Your task to perform on an android device: Open the Play Movies app and select the watchlist tab. Image 0: 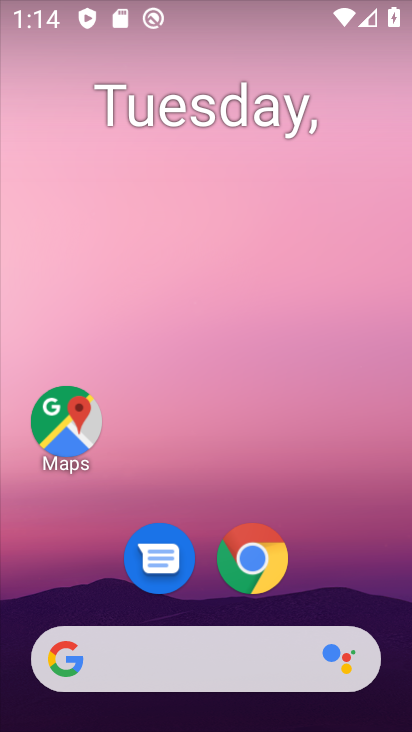
Step 0: drag from (212, 594) to (293, 36)
Your task to perform on an android device: Open the Play Movies app and select the watchlist tab. Image 1: 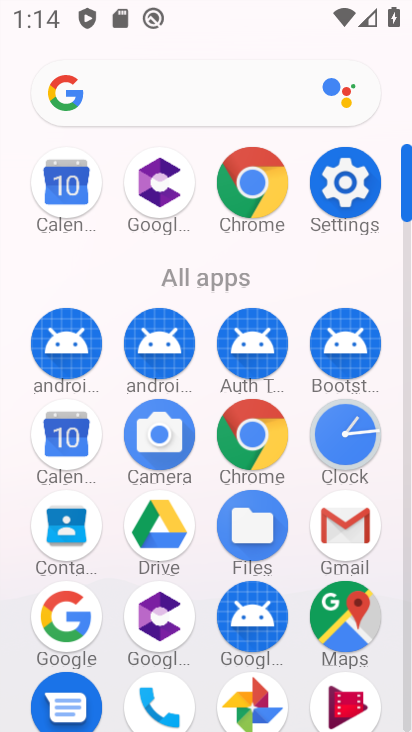
Step 1: click (348, 709)
Your task to perform on an android device: Open the Play Movies app and select the watchlist tab. Image 2: 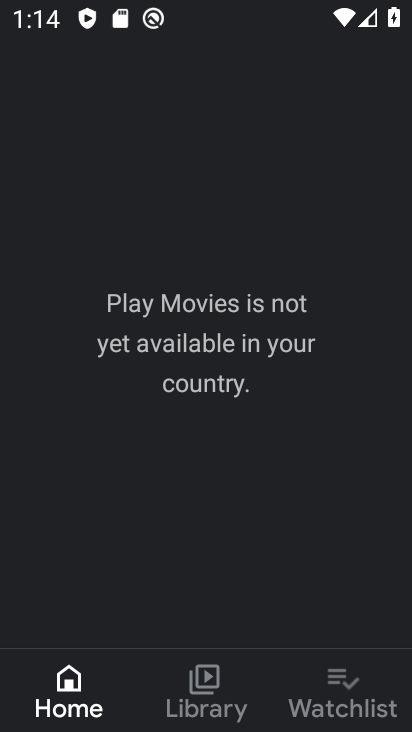
Step 2: click (378, 686)
Your task to perform on an android device: Open the Play Movies app and select the watchlist tab. Image 3: 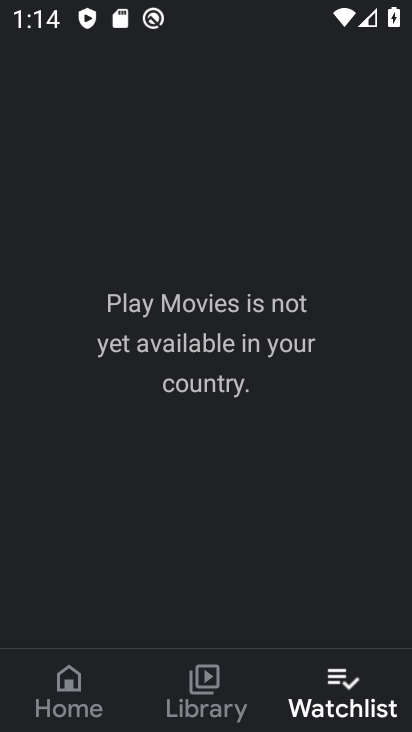
Step 3: task complete